Your task to perform on an android device: Go to ESPN.com Image 0: 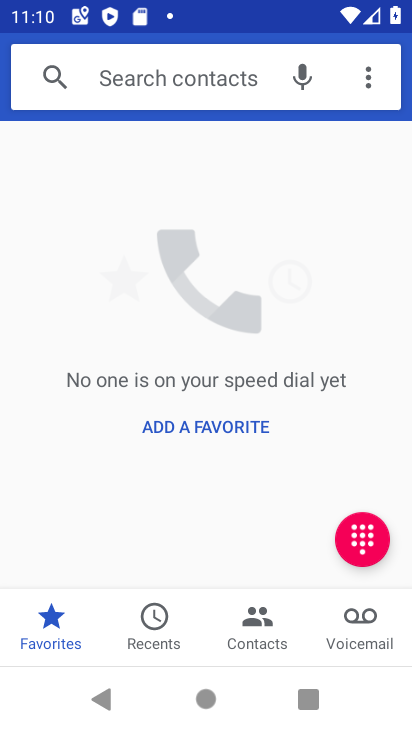
Step 0: press home button
Your task to perform on an android device: Go to ESPN.com Image 1: 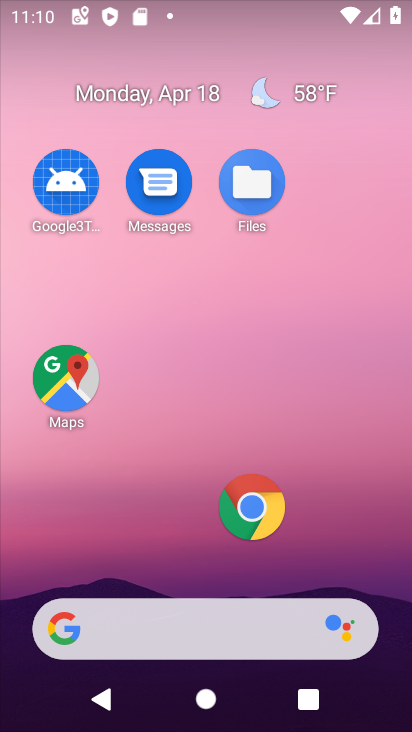
Step 1: click (237, 516)
Your task to perform on an android device: Go to ESPN.com Image 2: 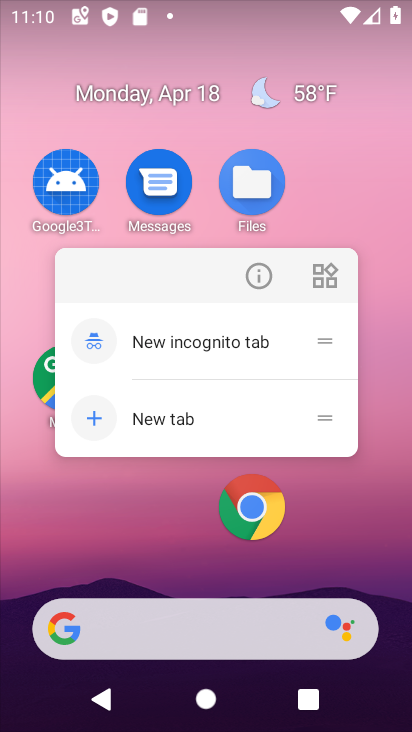
Step 2: click (249, 506)
Your task to perform on an android device: Go to ESPN.com Image 3: 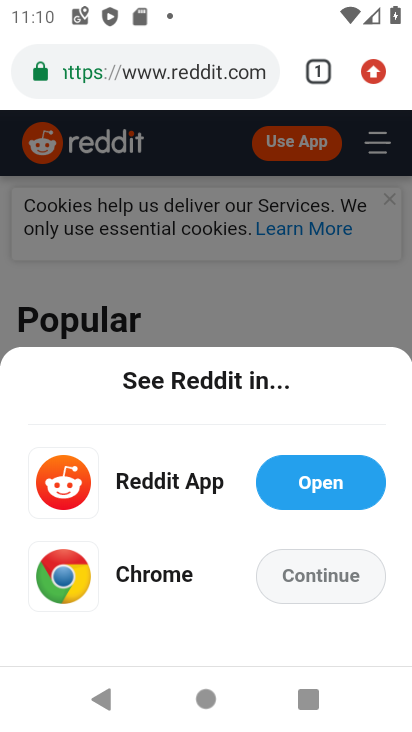
Step 3: click (310, 74)
Your task to perform on an android device: Go to ESPN.com Image 4: 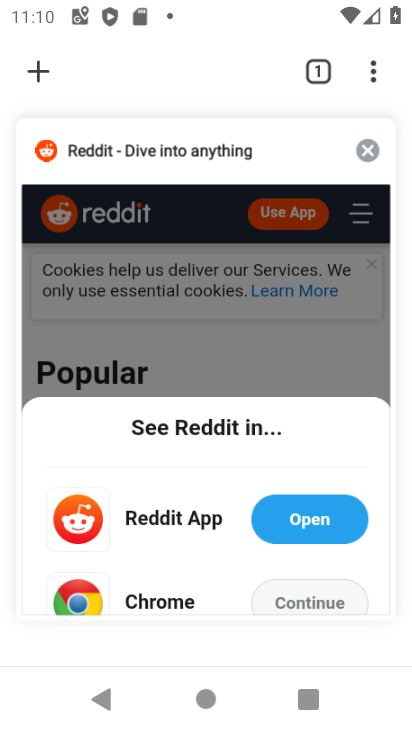
Step 4: click (34, 70)
Your task to perform on an android device: Go to ESPN.com Image 5: 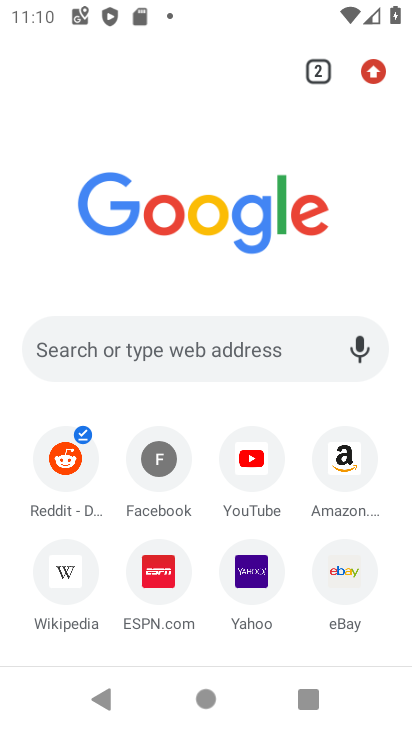
Step 5: click (156, 575)
Your task to perform on an android device: Go to ESPN.com Image 6: 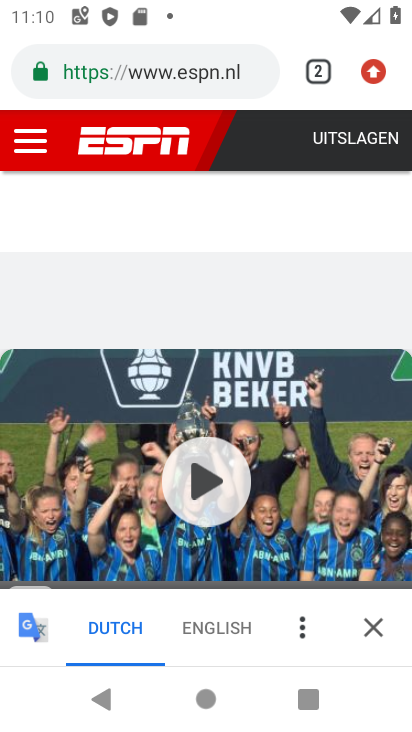
Step 6: task complete